Your task to perform on an android device: Open Google Chrome Image 0: 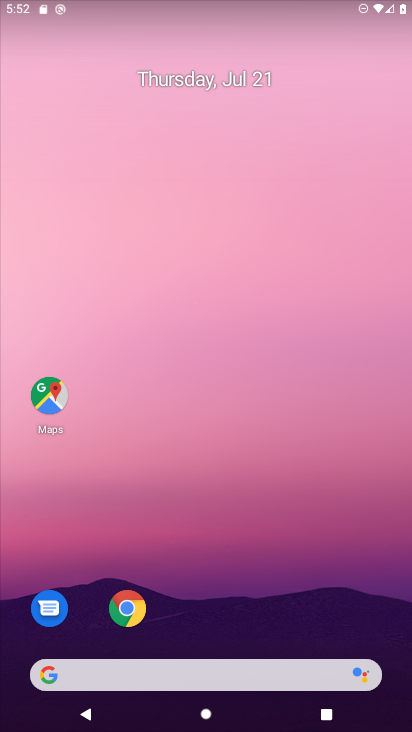
Step 0: click (127, 608)
Your task to perform on an android device: Open Google Chrome Image 1: 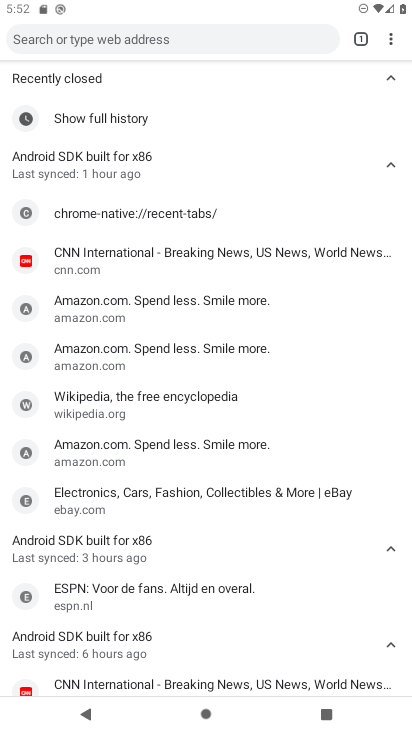
Step 1: task complete